Your task to perform on an android device: Open Google Maps Image 0: 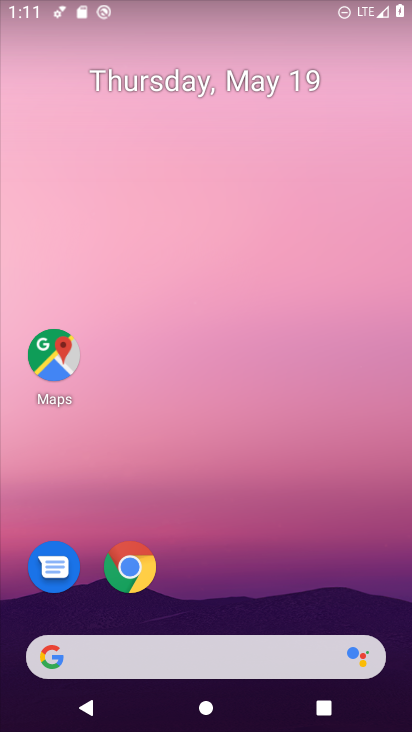
Step 0: click (52, 351)
Your task to perform on an android device: Open Google Maps Image 1: 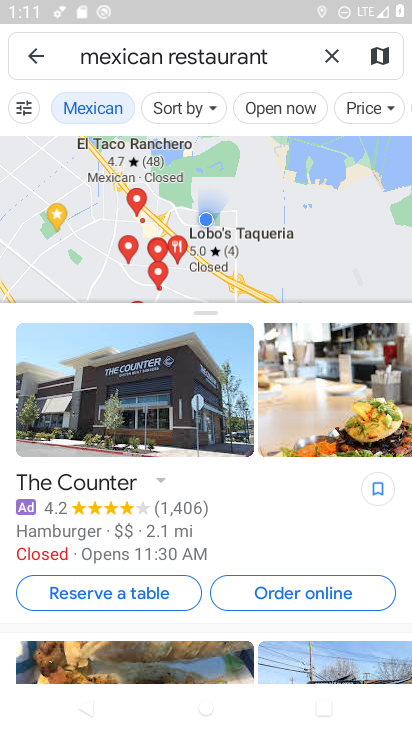
Step 1: click (334, 53)
Your task to perform on an android device: Open Google Maps Image 2: 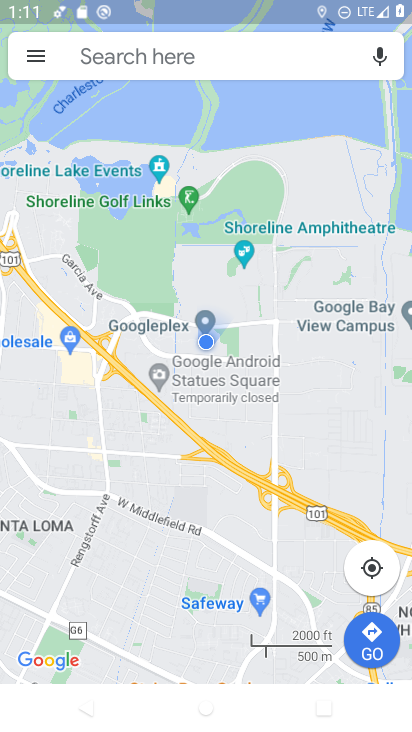
Step 2: task complete